Your task to perform on an android device: Turn off the flashlight Image 0: 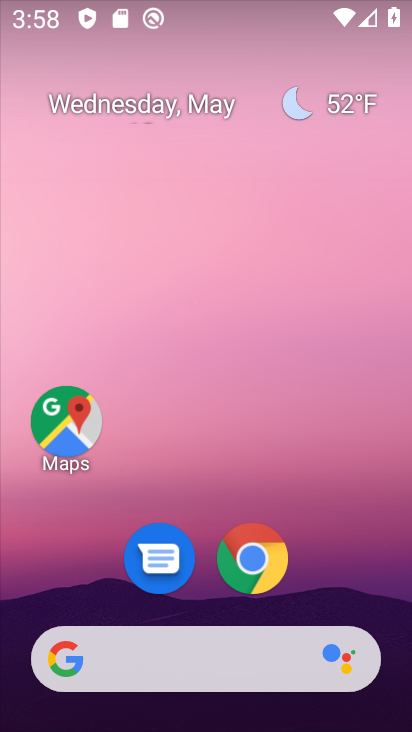
Step 0: drag from (328, 593) to (333, 332)
Your task to perform on an android device: Turn off the flashlight Image 1: 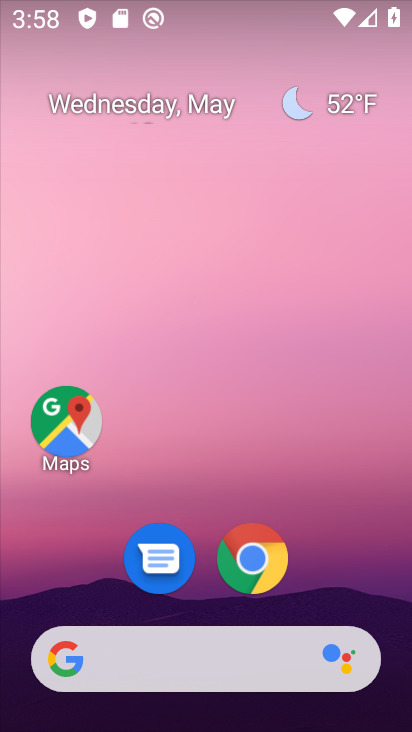
Step 1: drag from (346, 423) to (372, 153)
Your task to perform on an android device: Turn off the flashlight Image 2: 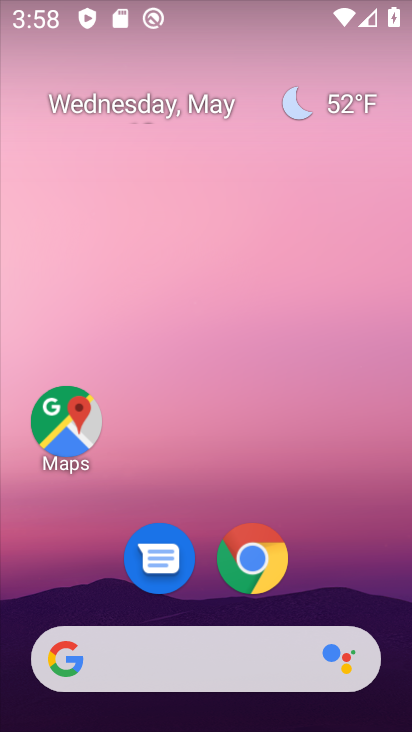
Step 2: drag from (337, 529) to (348, 22)
Your task to perform on an android device: Turn off the flashlight Image 3: 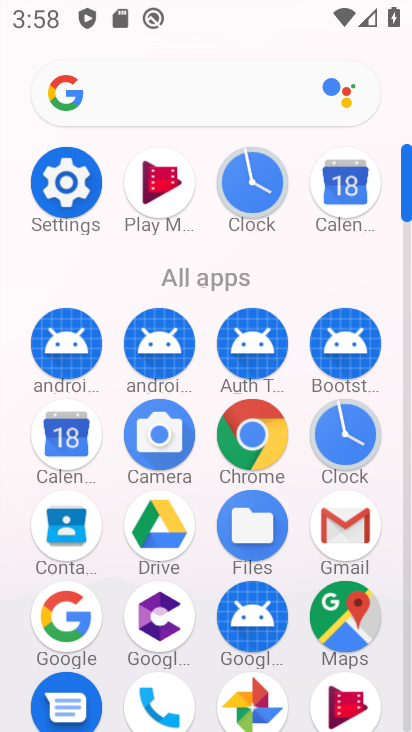
Step 3: click (68, 202)
Your task to perform on an android device: Turn off the flashlight Image 4: 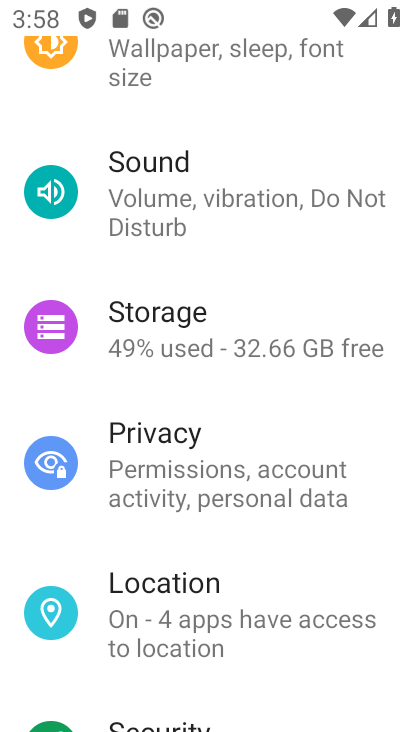
Step 4: drag from (196, 119) to (201, 489)
Your task to perform on an android device: Turn off the flashlight Image 5: 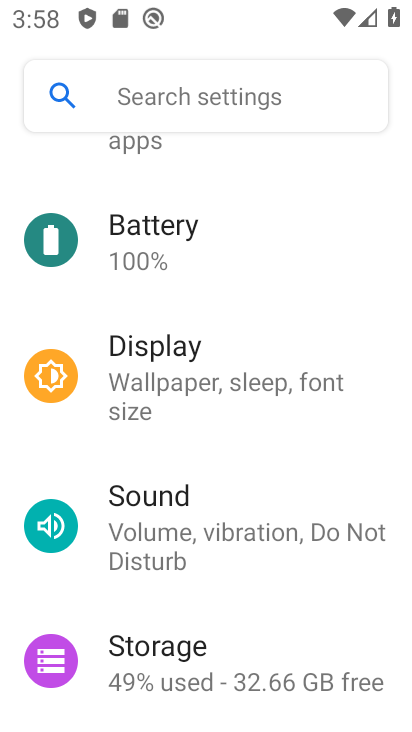
Step 5: drag from (226, 163) to (225, 599)
Your task to perform on an android device: Turn off the flashlight Image 6: 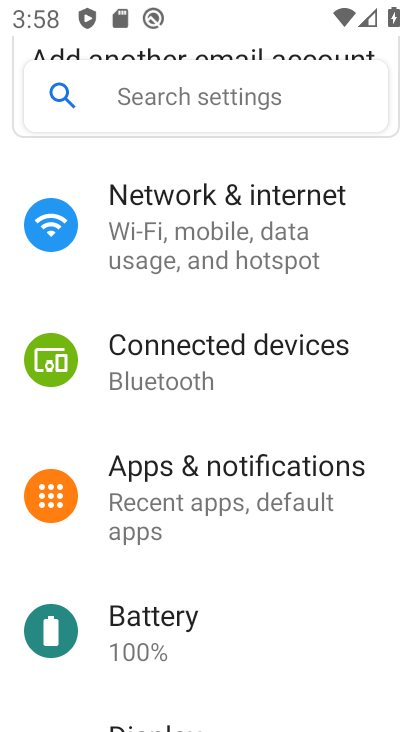
Step 6: click (179, 109)
Your task to perform on an android device: Turn off the flashlight Image 7: 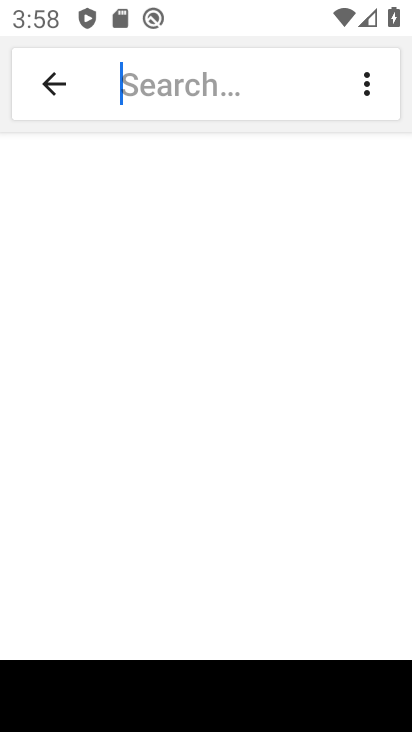
Step 7: type "flashlight"
Your task to perform on an android device: Turn off the flashlight Image 8: 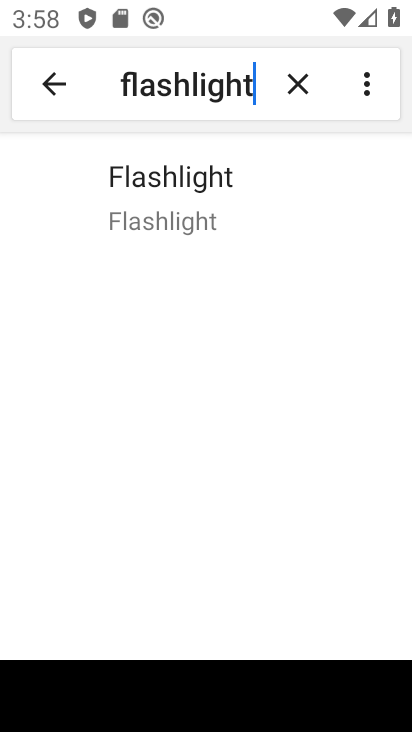
Step 8: click (132, 189)
Your task to perform on an android device: Turn off the flashlight Image 9: 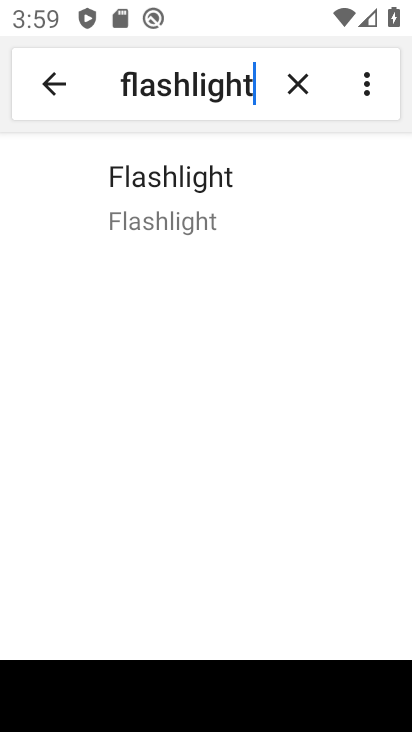
Step 9: click (160, 223)
Your task to perform on an android device: Turn off the flashlight Image 10: 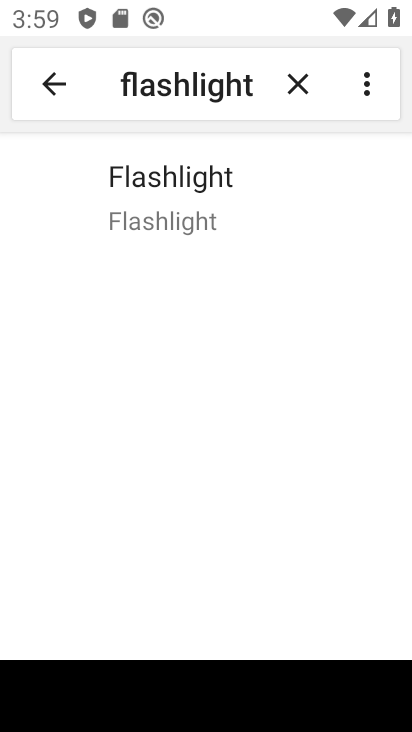
Step 10: task complete